Your task to perform on an android device: Go to wifi settings Image 0: 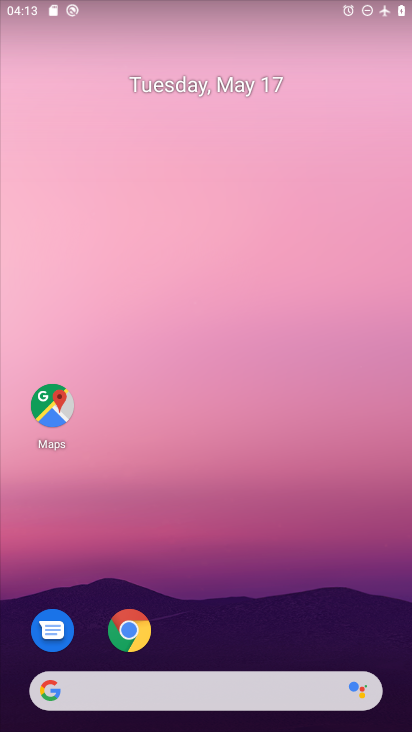
Step 0: drag from (60, 11) to (147, 548)
Your task to perform on an android device: Go to wifi settings Image 1: 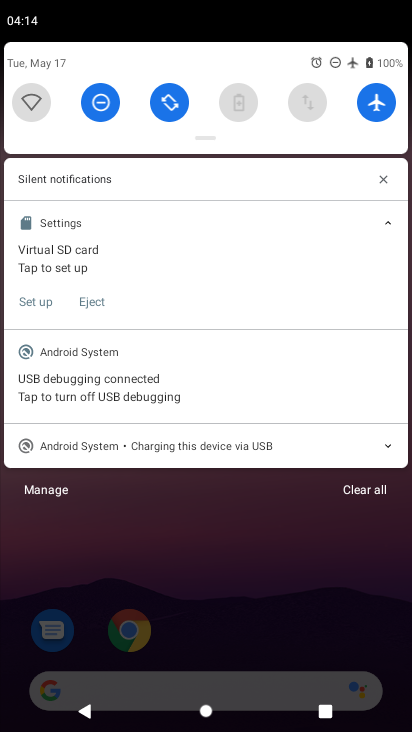
Step 1: click (27, 101)
Your task to perform on an android device: Go to wifi settings Image 2: 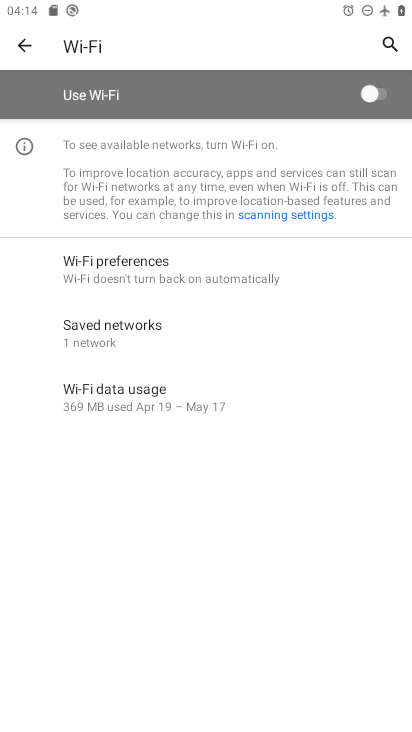
Step 2: task complete